Your task to perform on an android device: Do I have any events this weekend? Image 0: 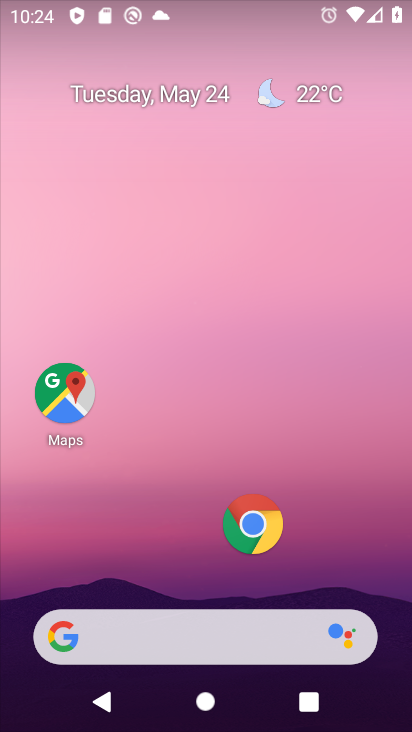
Step 0: drag from (158, 472) to (210, 14)
Your task to perform on an android device: Do I have any events this weekend? Image 1: 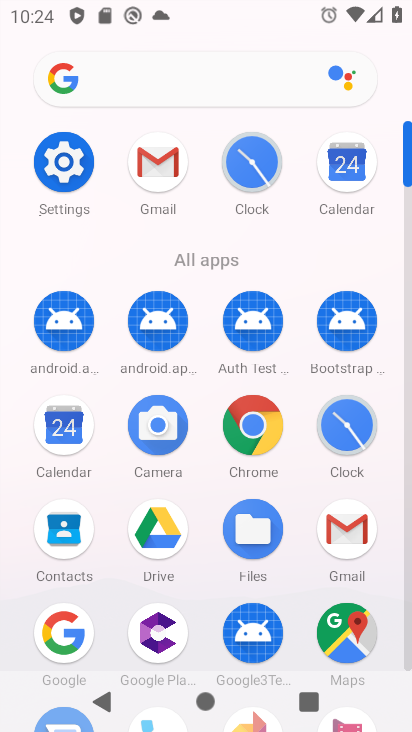
Step 1: click (330, 167)
Your task to perform on an android device: Do I have any events this weekend? Image 2: 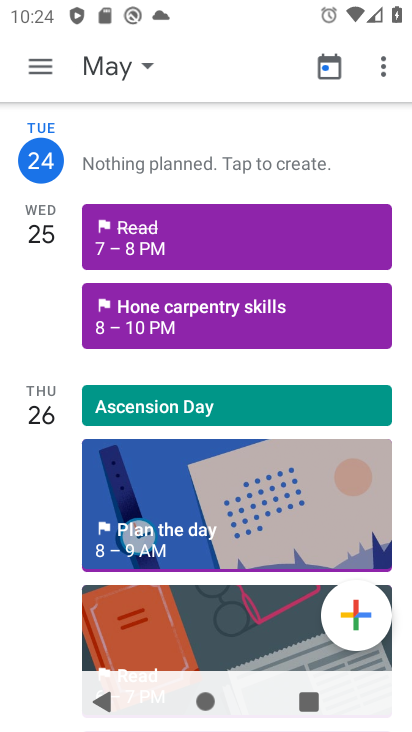
Step 2: task complete